Your task to perform on an android device: Open privacy settings Image 0: 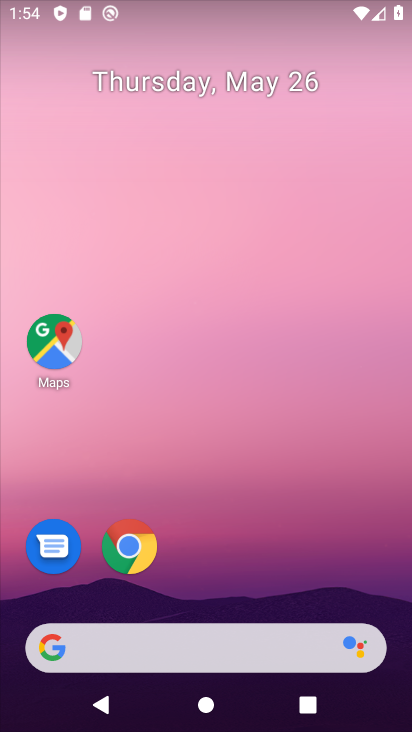
Step 0: click (133, 545)
Your task to perform on an android device: Open privacy settings Image 1: 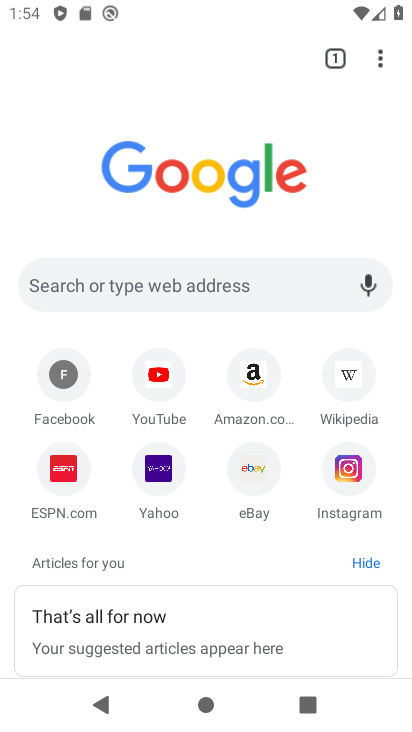
Step 1: click (378, 58)
Your task to perform on an android device: Open privacy settings Image 2: 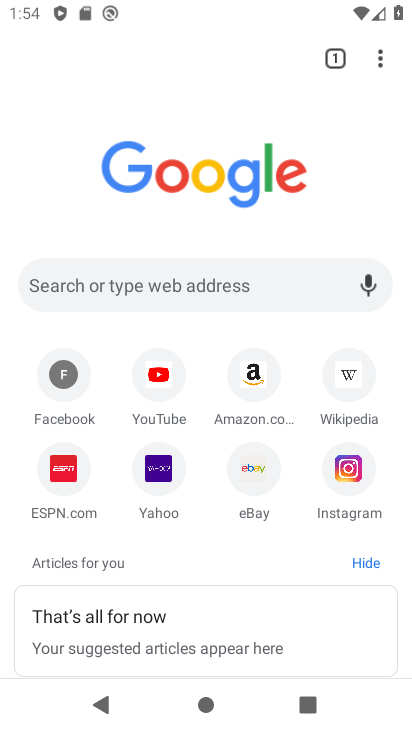
Step 2: click (368, 74)
Your task to perform on an android device: Open privacy settings Image 3: 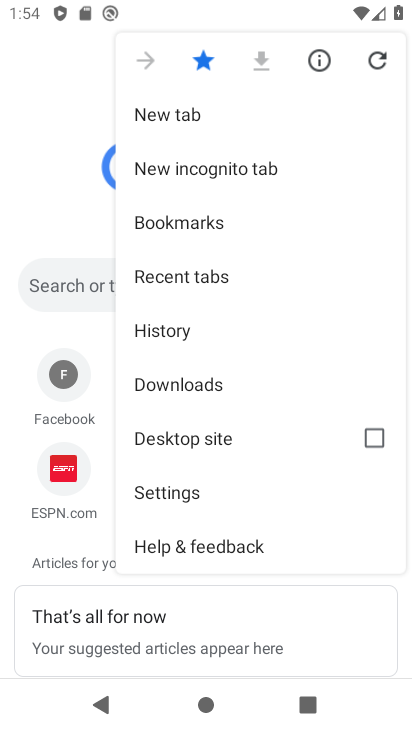
Step 3: click (189, 496)
Your task to perform on an android device: Open privacy settings Image 4: 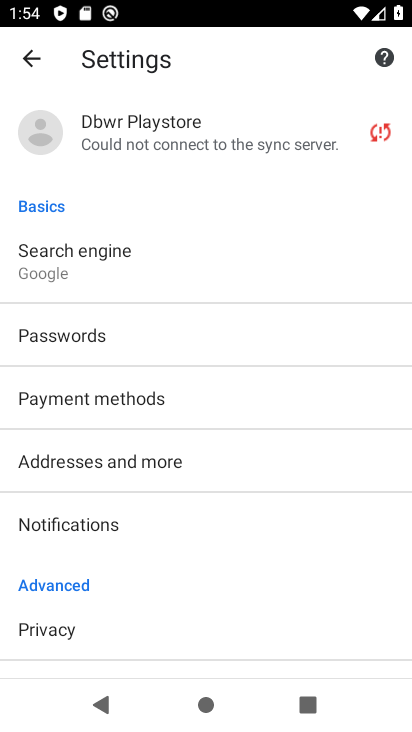
Step 4: click (87, 637)
Your task to perform on an android device: Open privacy settings Image 5: 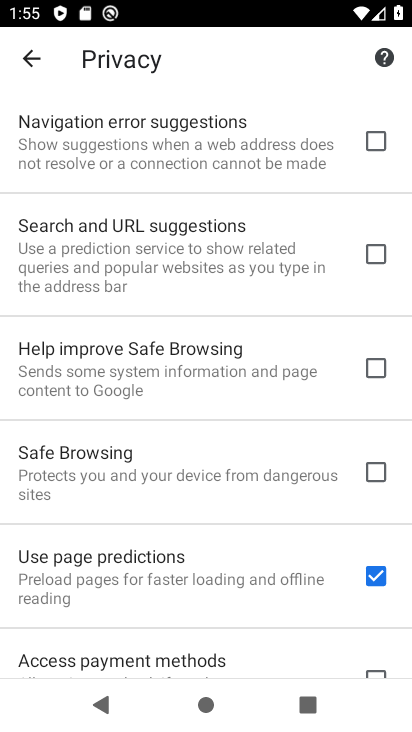
Step 5: task complete